Your task to perform on an android device: Toggle the flashlight Image 0: 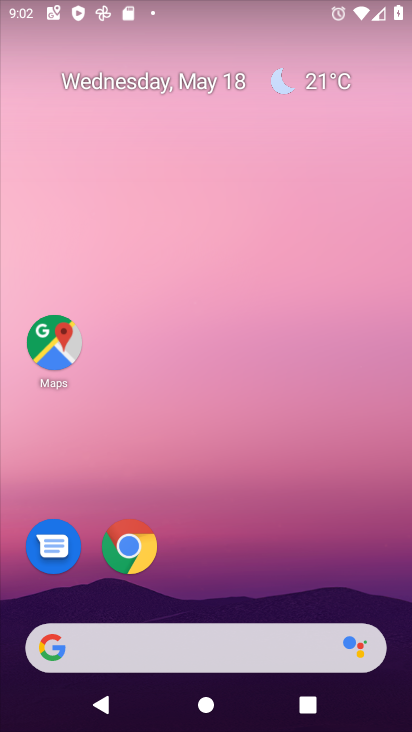
Step 0: drag from (393, 621) to (323, 85)
Your task to perform on an android device: Toggle the flashlight Image 1: 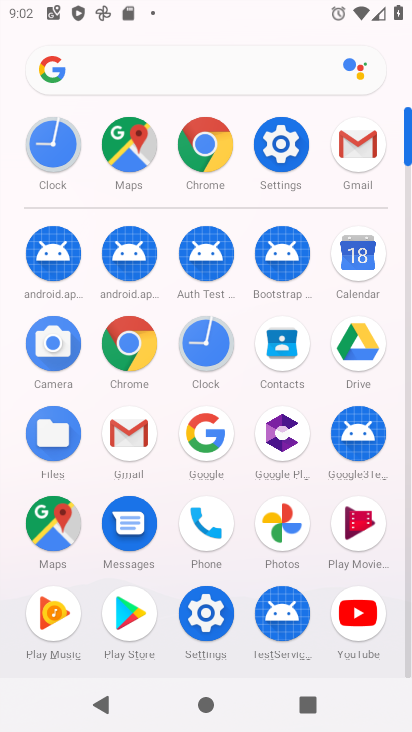
Step 1: click (295, 143)
Your task to perform on an android device: Toggle the flashlight Image 2: 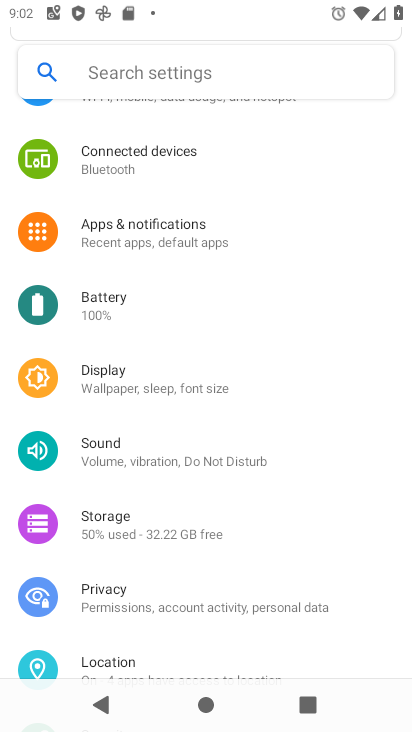
Step 2: task complete